Your task to perform on an android device: Go to Google maps Image 0: 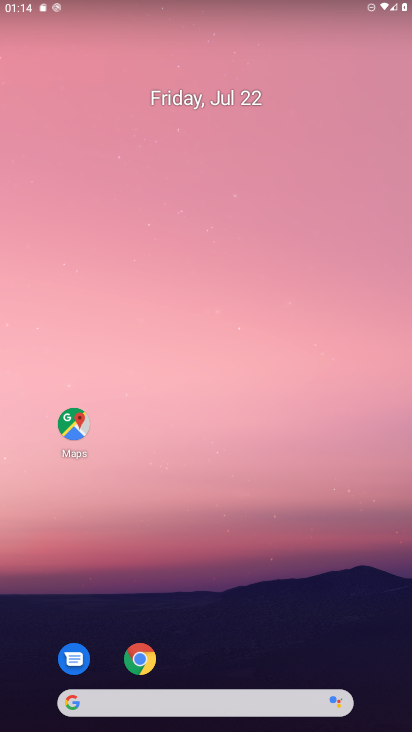
Step 0: click (71, 428)
Your task to perform on an android device: Go to Google maps Image 1: 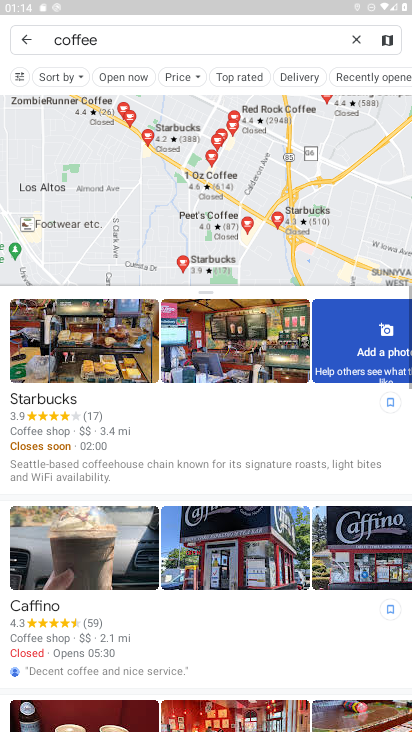
Step 1: task complete